Your task to perform on an android device: search for starred emails in the gmail app Image 0: 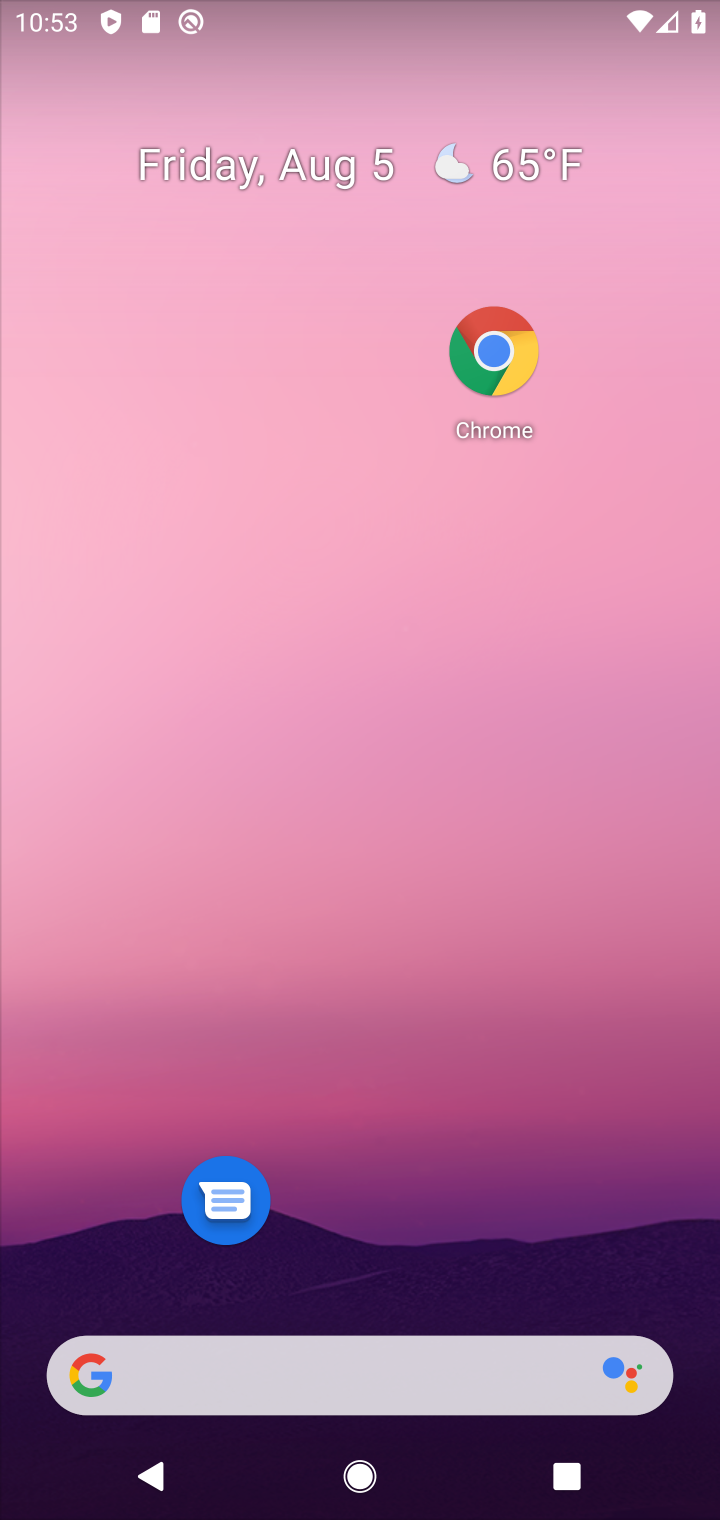
Step 0: drag from (496, 1235) to (378, 231)
Your task to perform on an android device: search for starred emails in the gmail app Image 1: 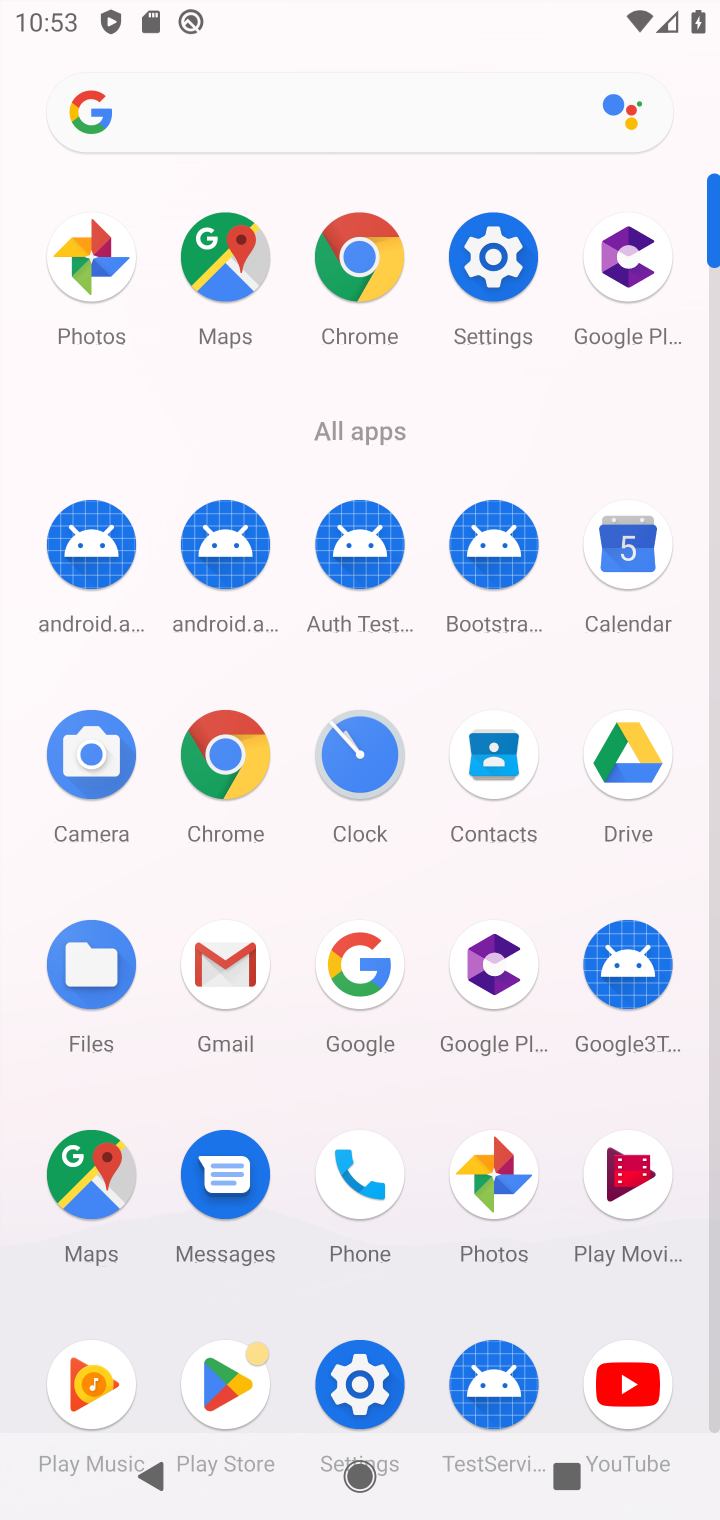
Step 1: click (243, 982)
Your task to perform on an android device: search for starred emails in the gmail app Image 2: 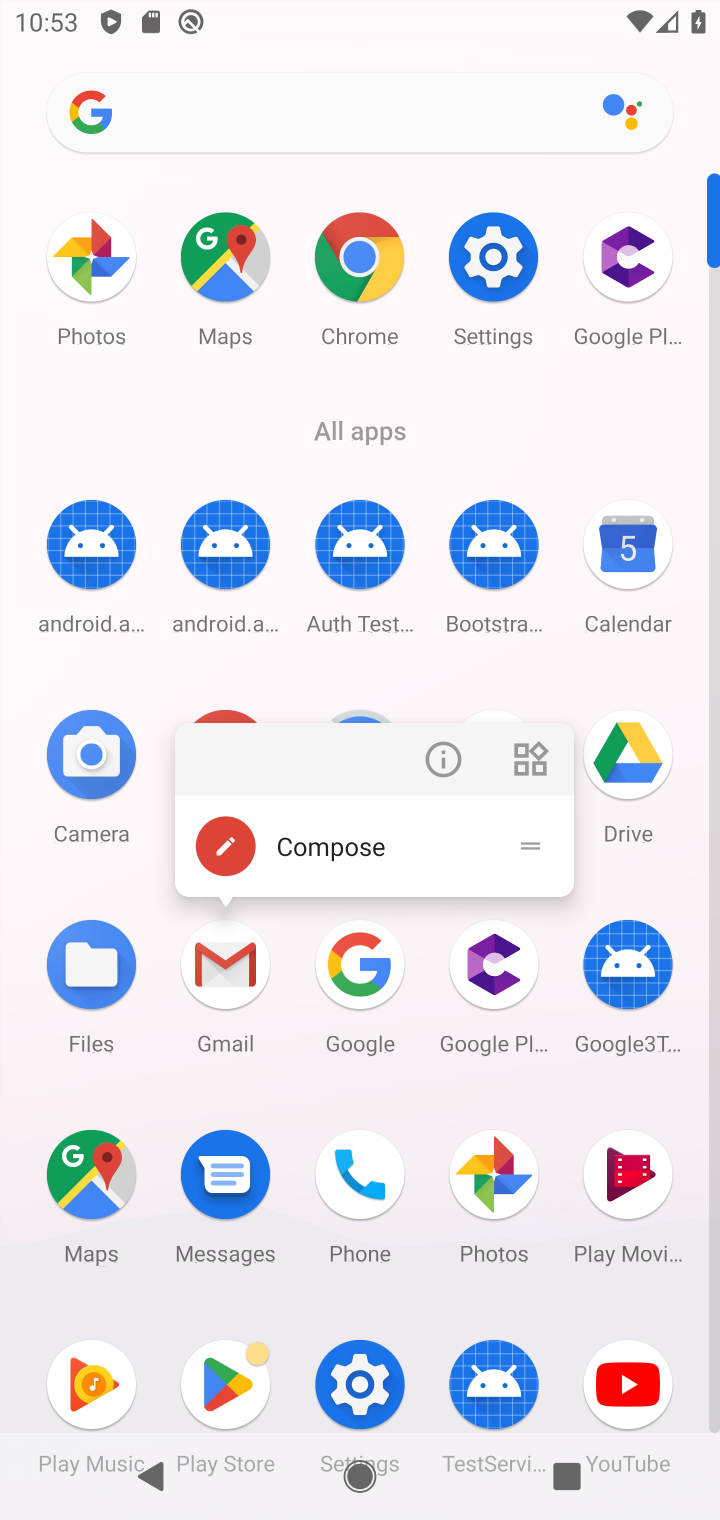
Step 2: click (246, 966)
Your task to perform on an android device: search for starred emails in the gmail app Image 3: 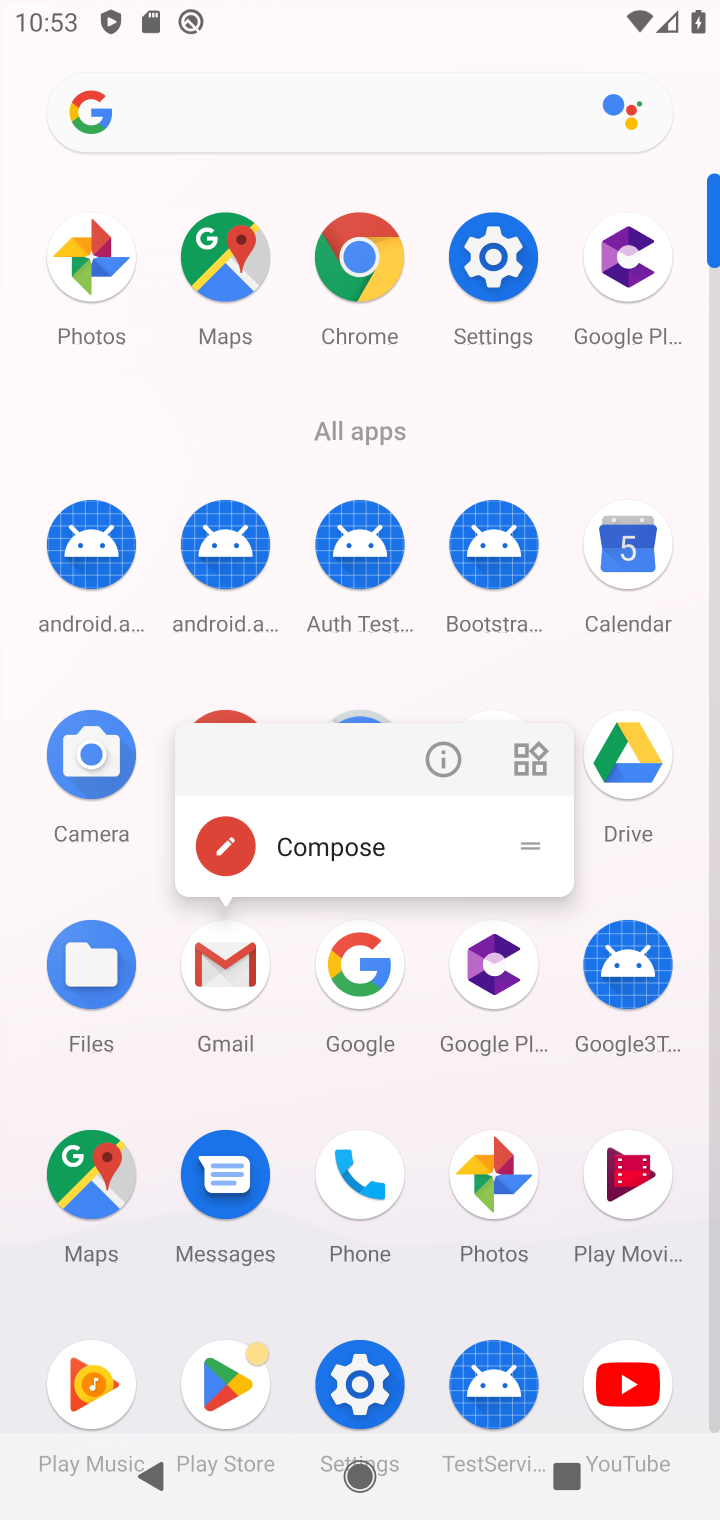
Step 3: click (244, 968)
Your task to perform on an android device: search for starred emails in the gmail app Image 4: 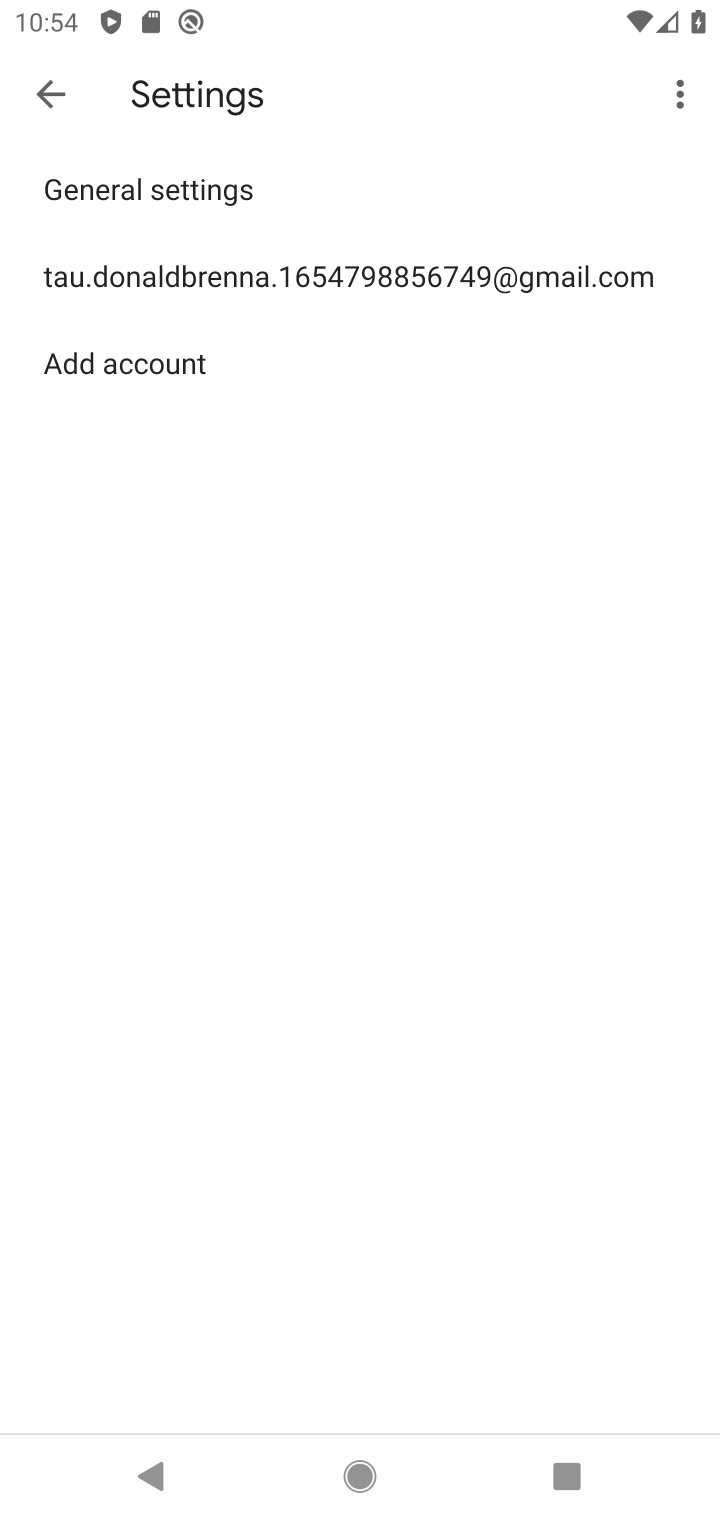
Step 4: click (59, 102)
Your task to perform on an android device: search for starred emails in the gmail app Image 5: 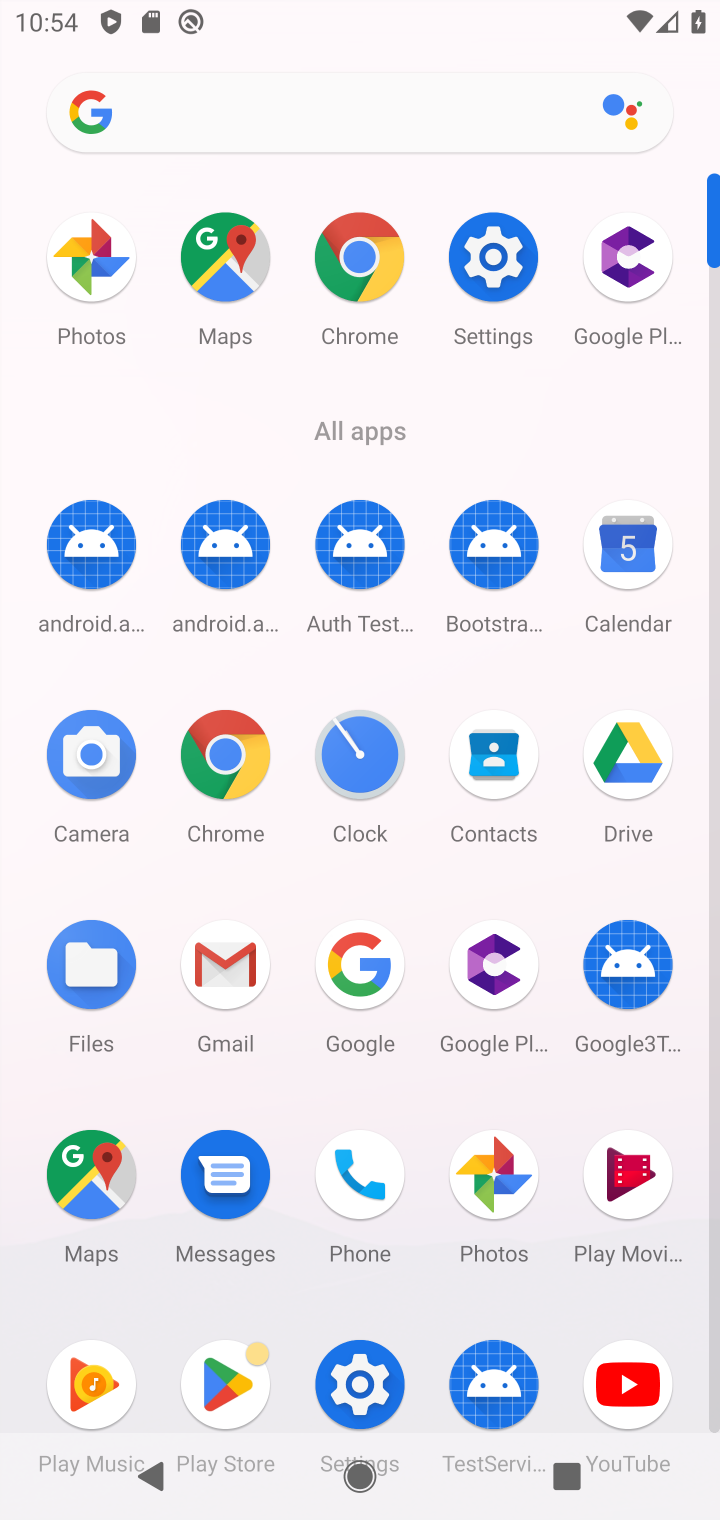
Step 5: click (268, 971)
Your task to perform on an android device: search for starred emails in the gmail app Image 6: 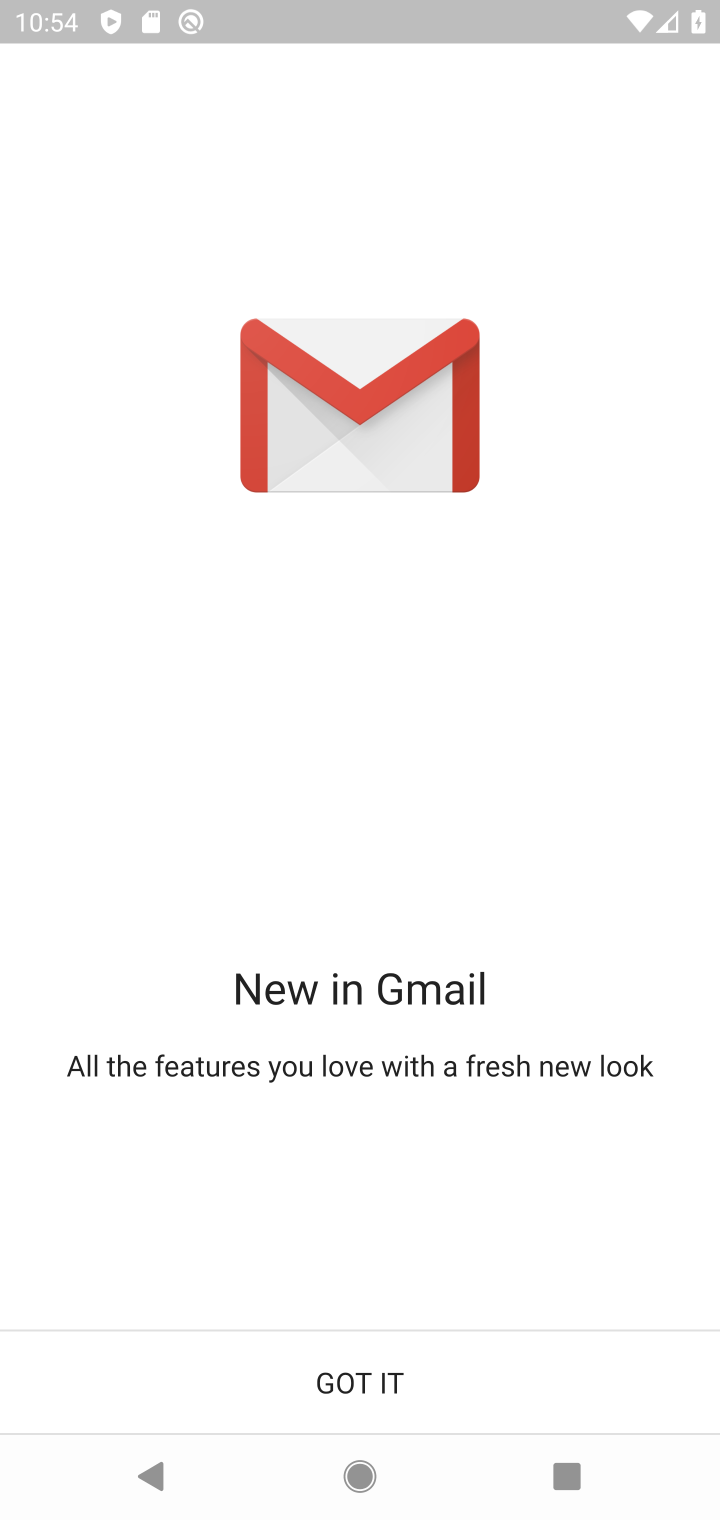
Step 6: click (397, 1371)
Your task to perform on an android device: search for starred emails in the gmail app Image 7: 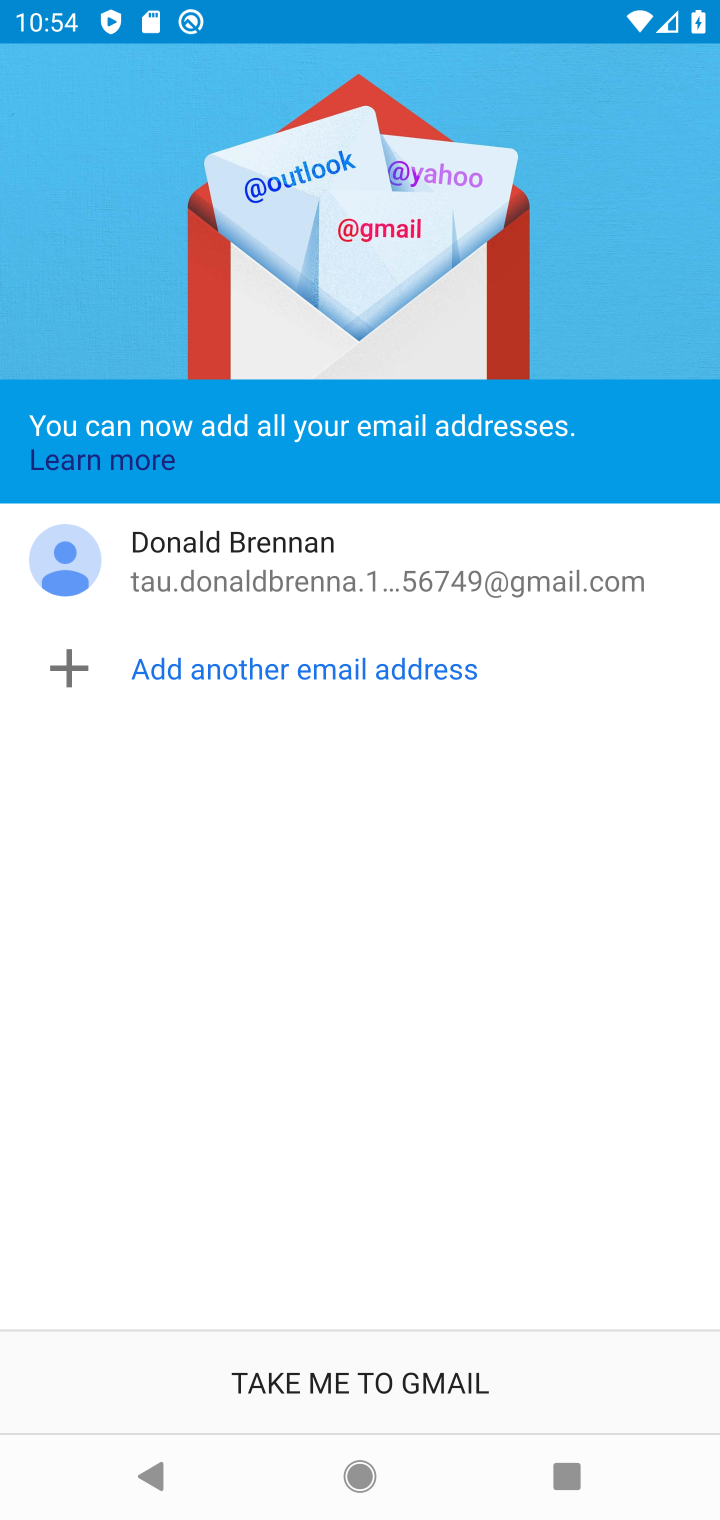
Step 7: click (397, 1371)
Your task to perform on an android device: search for starred emails in the gmail app Image 8: 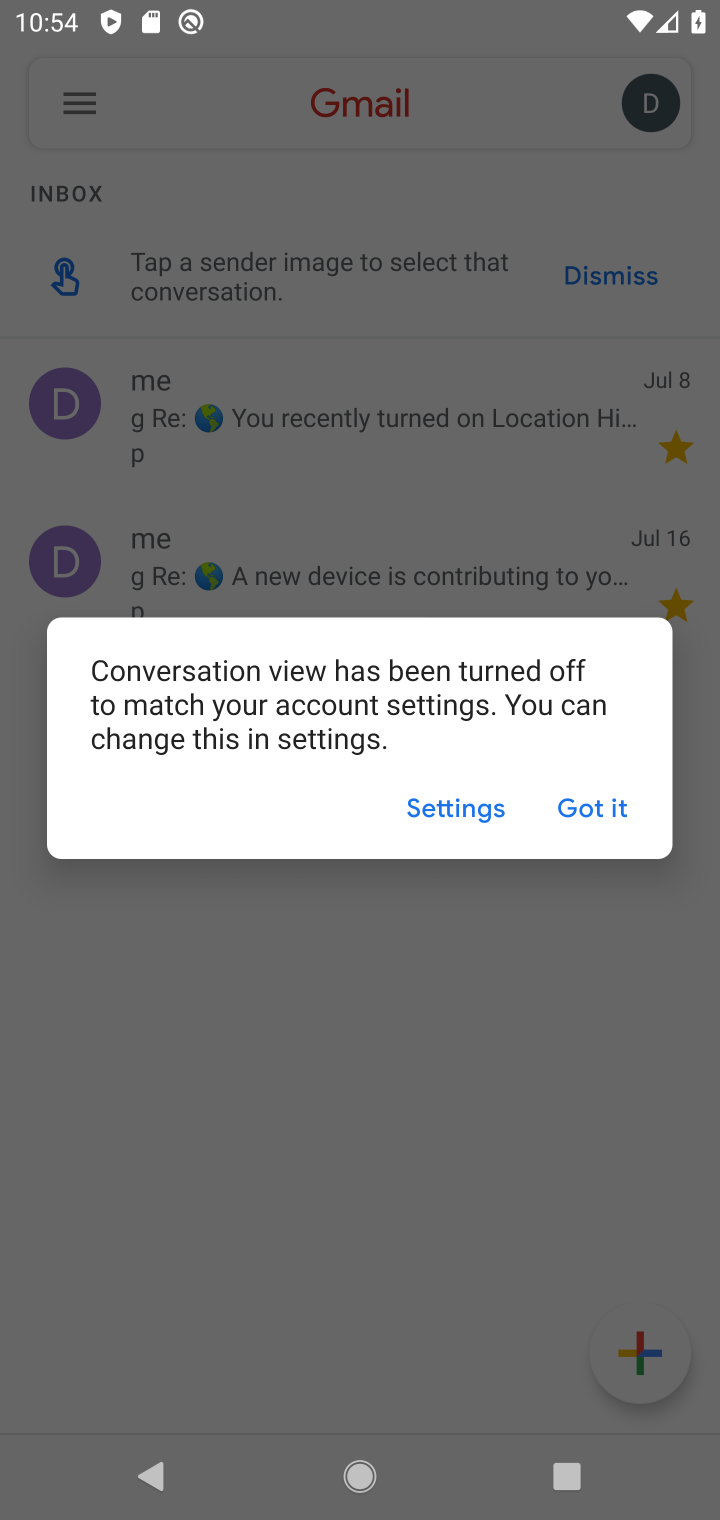
Step 8: click (592, 829)
Your task to perform on an android device: search for starred emails in the gmail app Image 9: 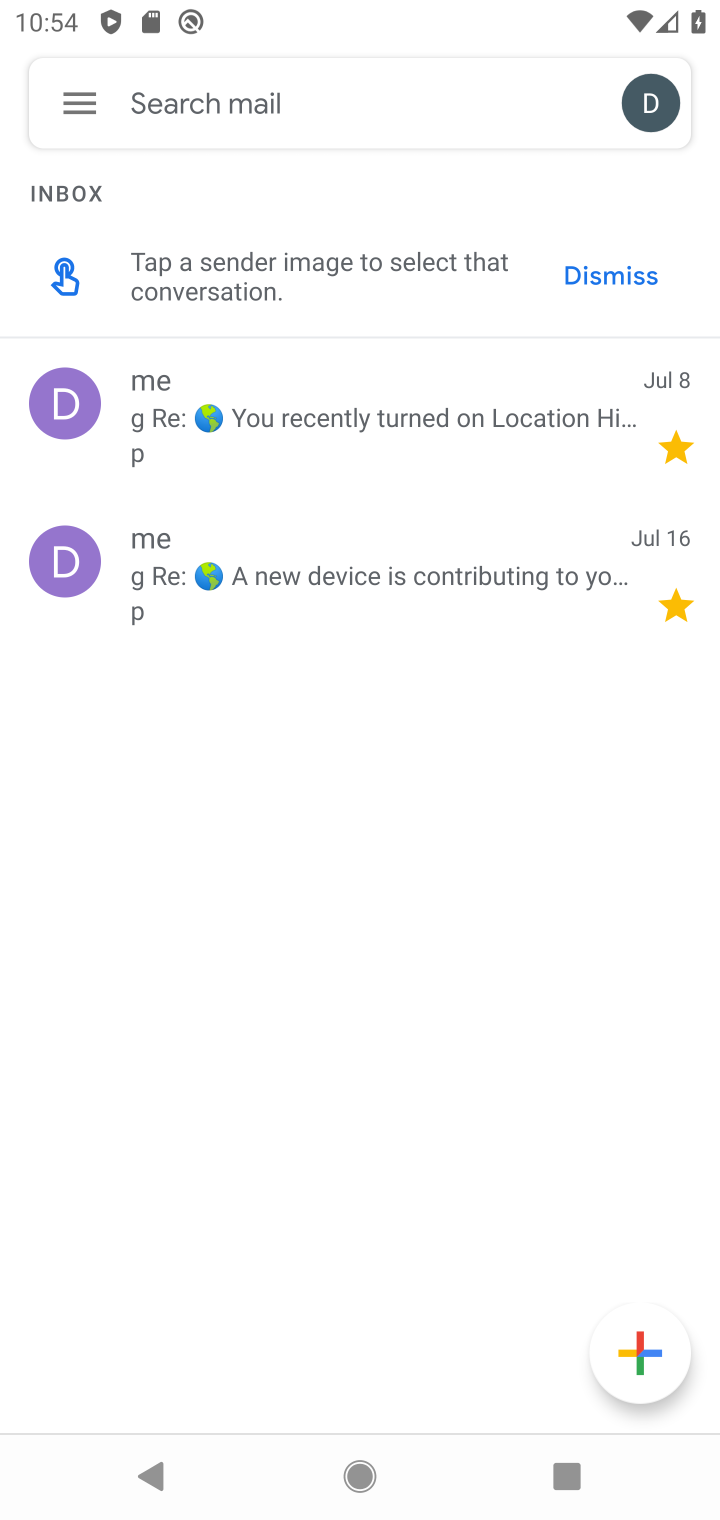
Step 9: click (92, 87)
Your task to perform on an android device: search for starred emails in the gmail app Image 10: 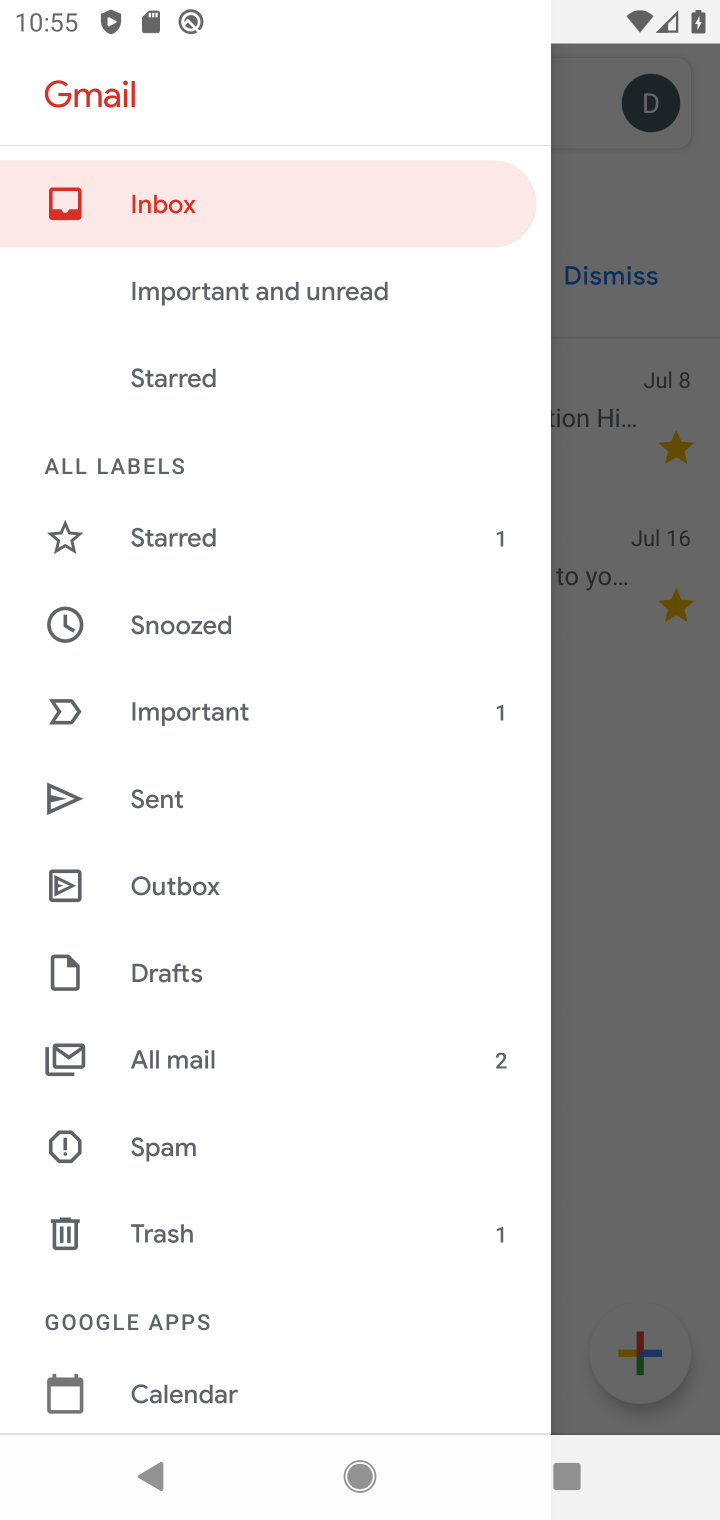
Step 10: click (192, 547)
Your task to perform on an android device: search for starred emails in the gmail app Image 11: 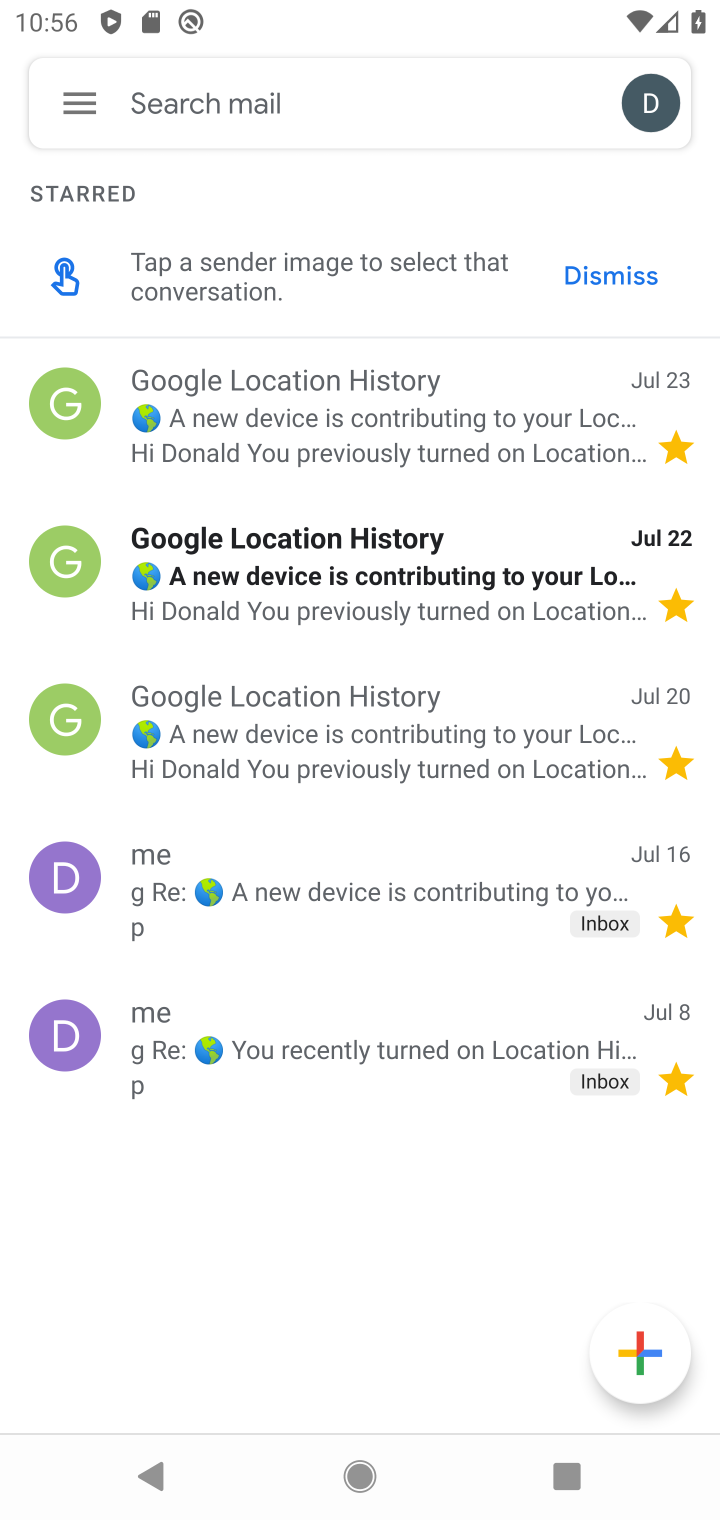
Step 11: task complete